Your task to perform on an android device: Open Amazon Image 0: 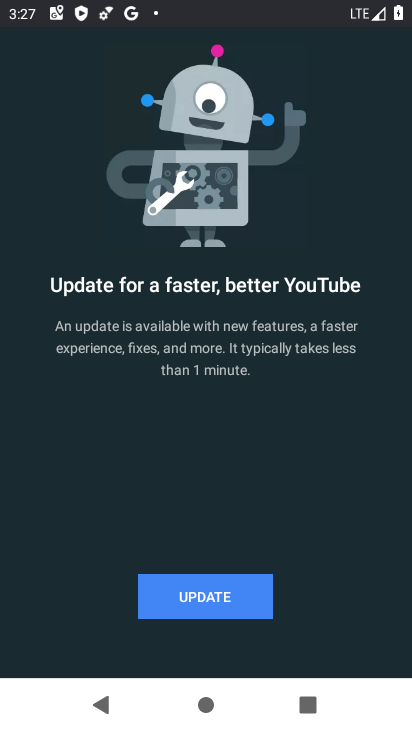
Step 0: press home button
Your task to perform on an android device: Open Amazon Image 1: 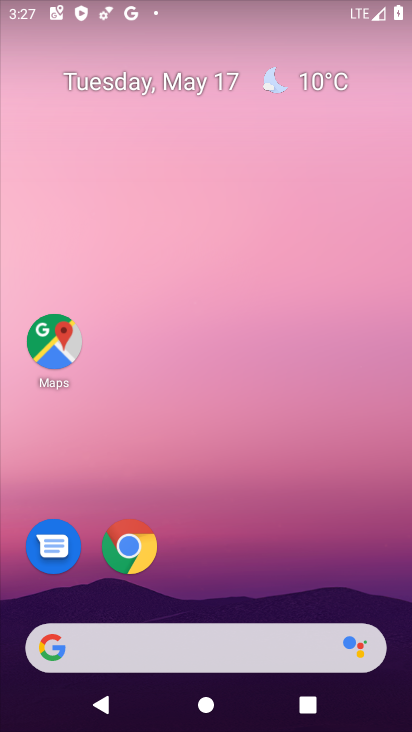
Step 1: click (149, 540)
Your task to perform on an android device: Open Amazon Image 2: 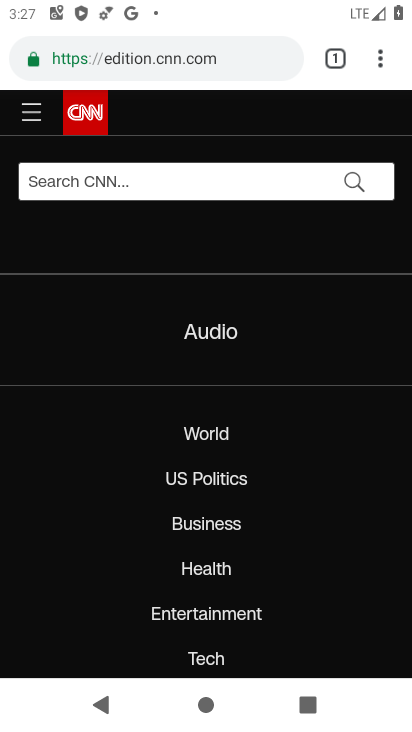
Step 2: click (171, 37)
Your task to perform on an android device: Open Amazon Image 3: 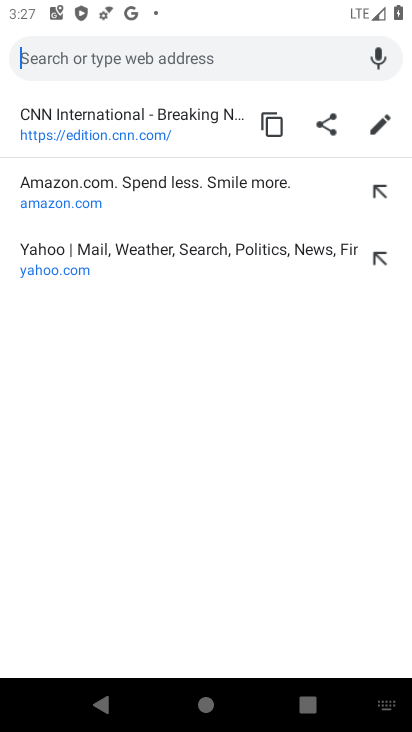
Step 3: type "Amazon"
Your task to perform on an android device: Open Amazon Image 4: 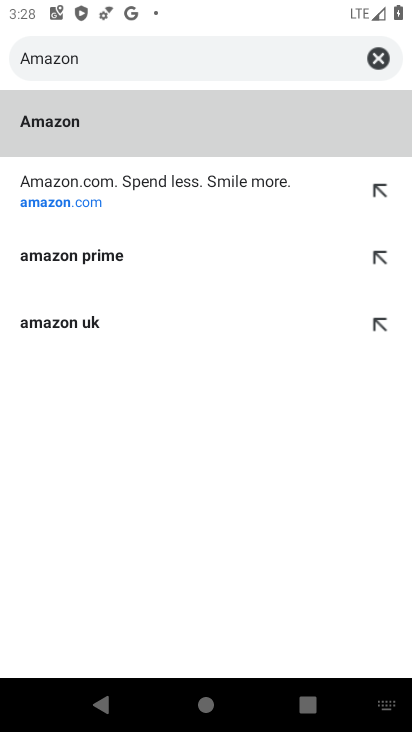
Step 4: click (130, 121)
Your task to perform on an android device: Open Amazon Image 5: 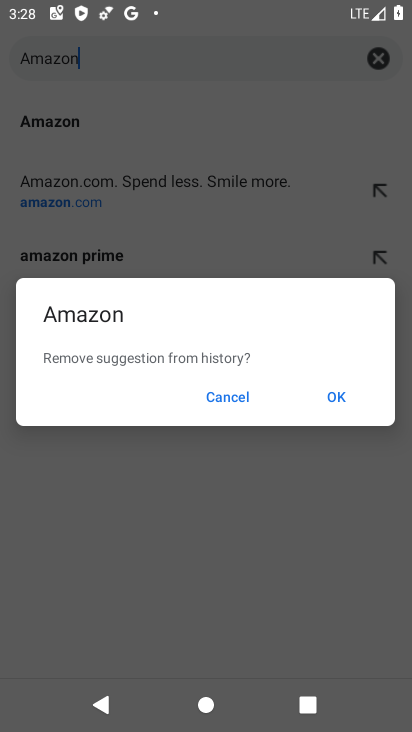
Step 5: click (218, 388)
Your task to perform on an android device: Open Amazon Image 6: 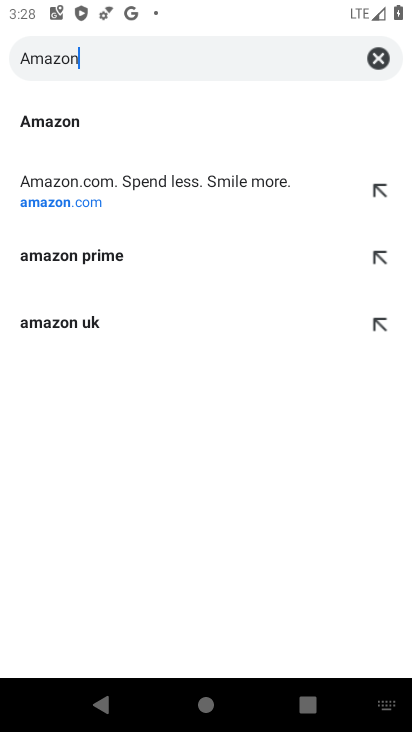
Step 6: click (101, 137)
Your task to perform on an android device: Open Amazon Image 7: 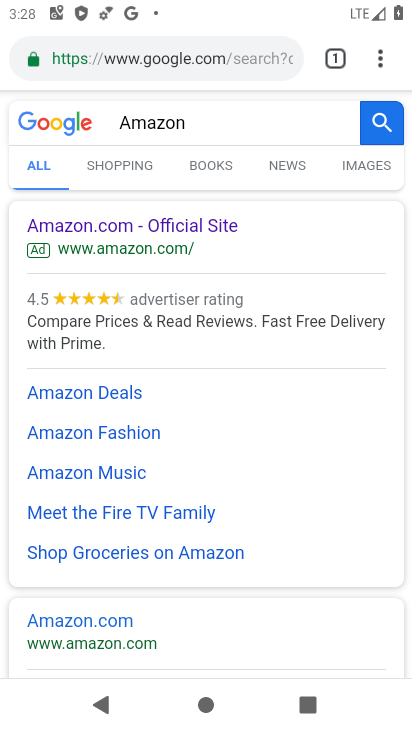
Step 7: task complete